Your task to perform on an android device: Open Amazon Image 0: 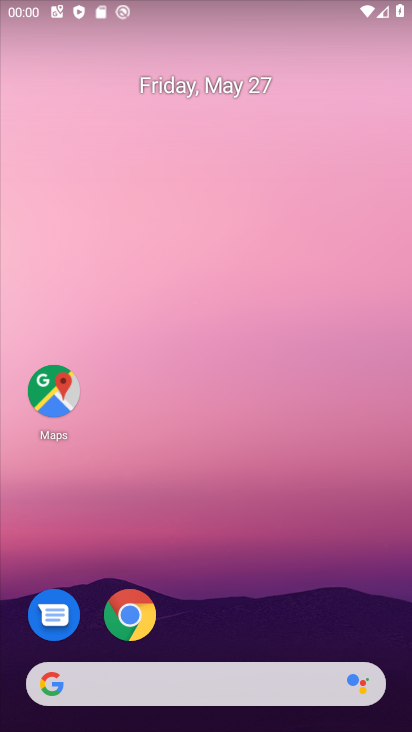
Step 0: click (119, 617)
Your task to perform on an android device: Open Amazon Image 1: 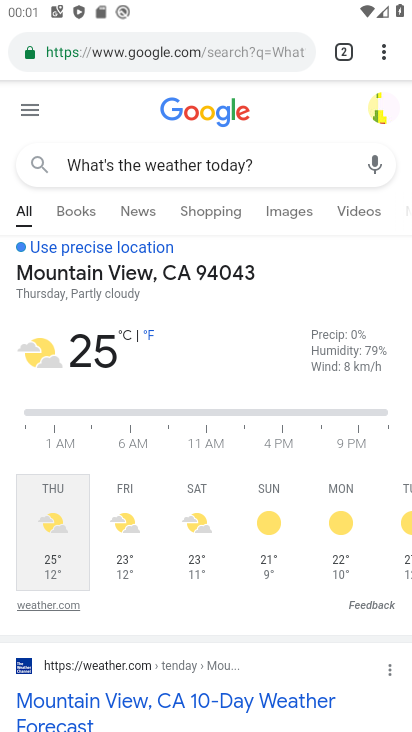
Step 1: drag from (382, 54) to (182, 102)
Your task to perform on an android device: Open Amazon Image 2: 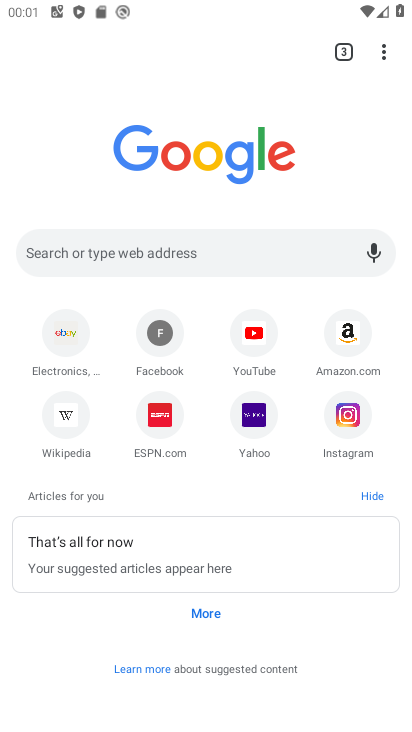
Step 2: click (321, 355)
Your task to perform on an android device: Open Amazon Image 3: 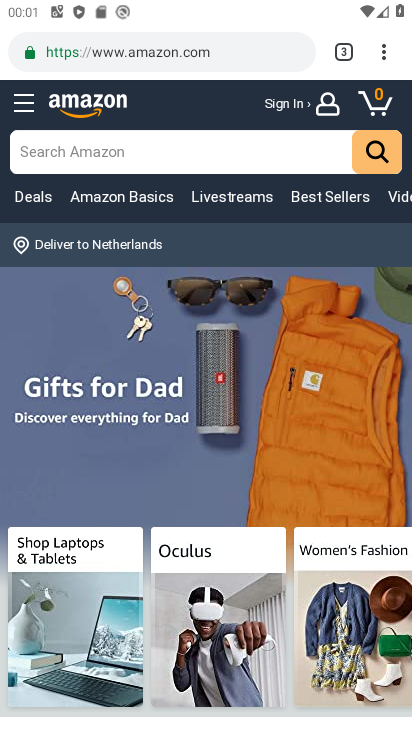
Step 3: task complete